Your task to perform on an android device: open device folders in google photos Image 0: 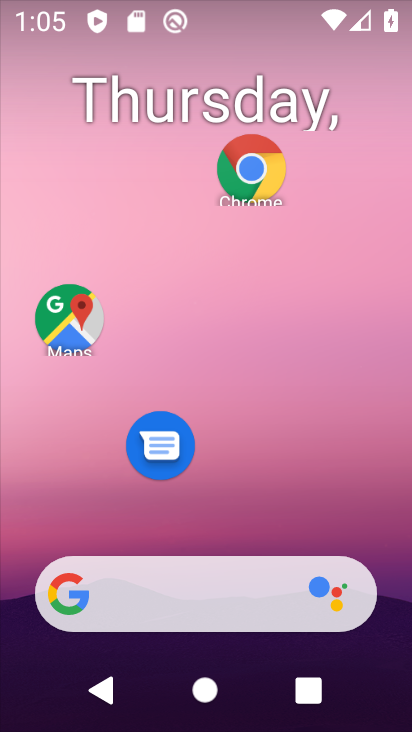
Step 0: drag from (242, 653) to (332, 158)
Your task to perform on an android device: open device folders in google photos Image 1: 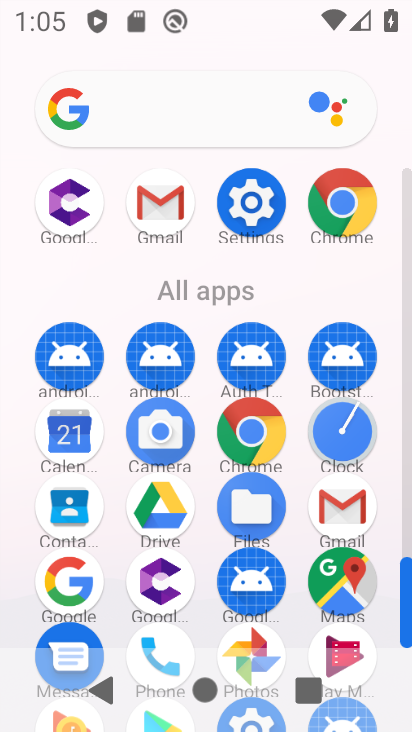
Step 1: click (248, 645)
Your task to perform on an android device: open device folders in google photos Image 2: 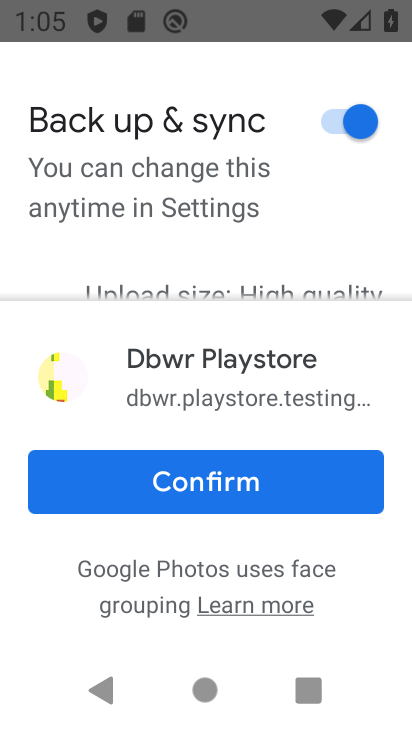
Step 2: click (269, 483)
Your task to perform on an android device: open device folders in google photos Image 3: 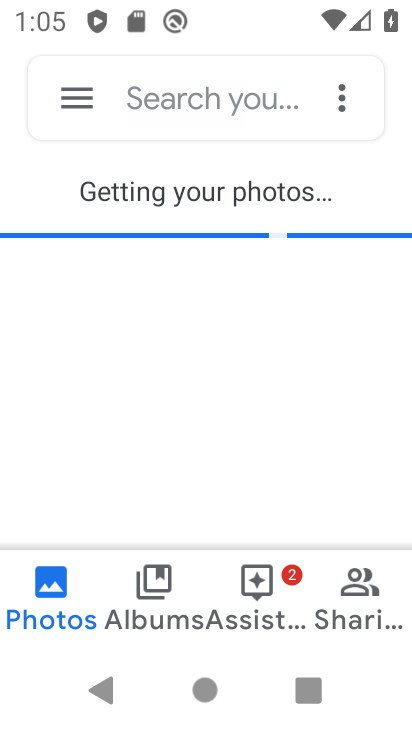
Step 3: click (60, 119)
Your task to perform on an android device: open device folders in google photos Image 4: 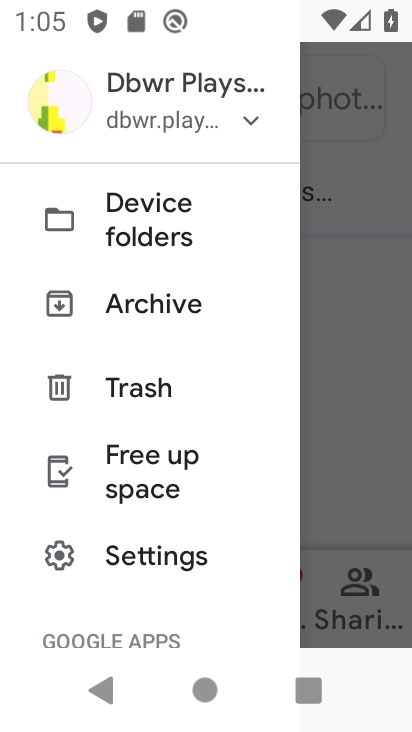
Step 4: click (125, 207)
Your task to perform on an android device: open device folders in google photos Image 5: 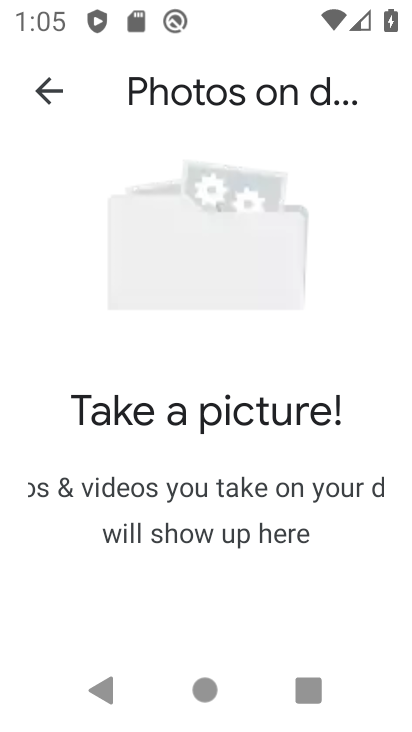
Step 5: task complete